Your task to perform on an android device: Open Maps and search for coffee Image 0: 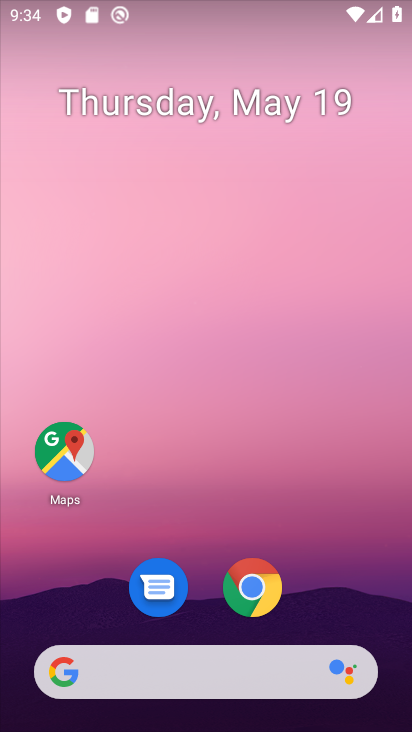
Step 0: click (86, 457)
Your task to perform on an android device: Open Maps and search for coffee Image 1: 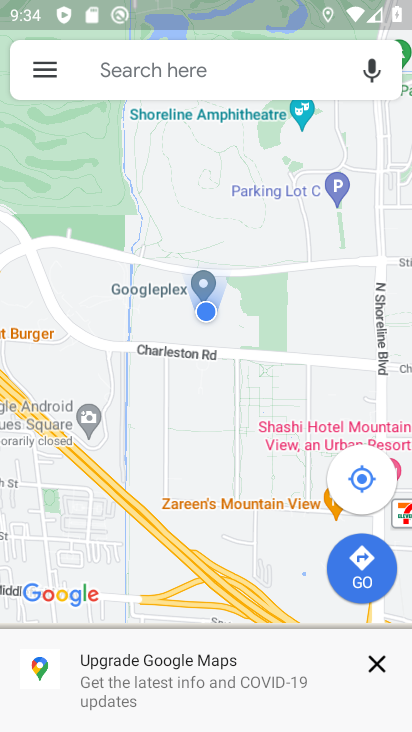
Step 1: click (172, 68)
Your task to perform on an android device: Open Maps and search for coffee Image 2: 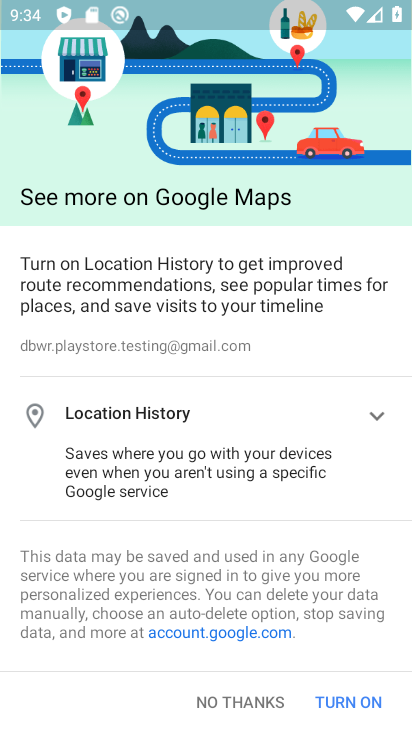
Step 2: click (327, 709)
Your task to perform on an android device: Open Maps and search for coffee Image 3: 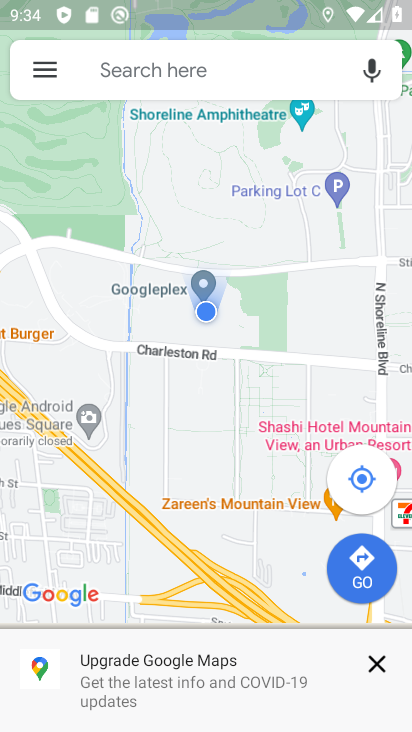
Step 3: click (184, 221)
Your task to perform on an android device: Open Maps and search for coffee Image 4: 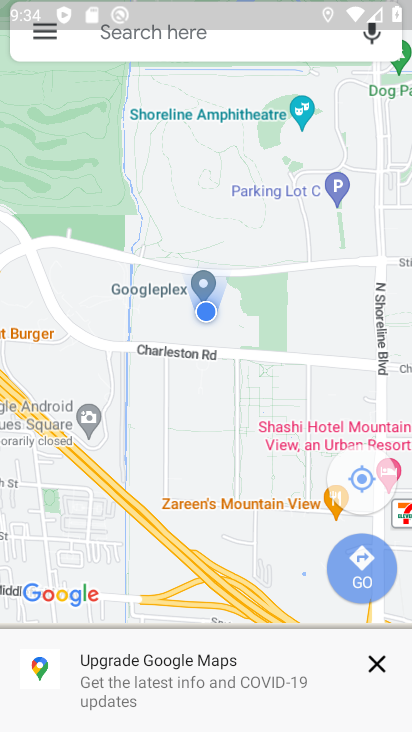
Step 4: click (43, 166)
Your task to perform on an android device: Open Maps and search for coffee Image 5: 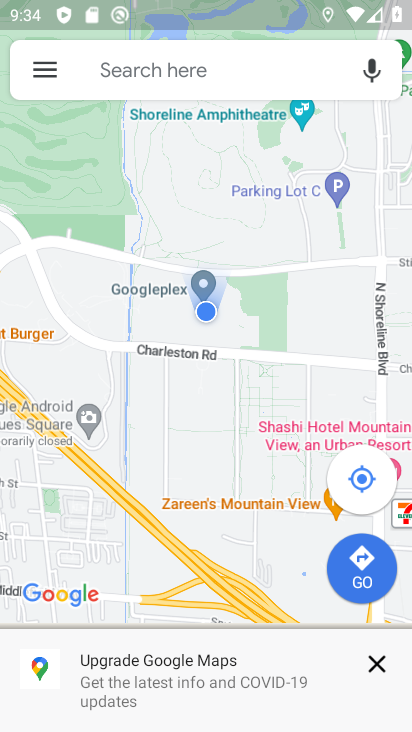
Step 5: click (175, 80)
Your task to perform on an android device: Open Maps and search for coffee Image 6: 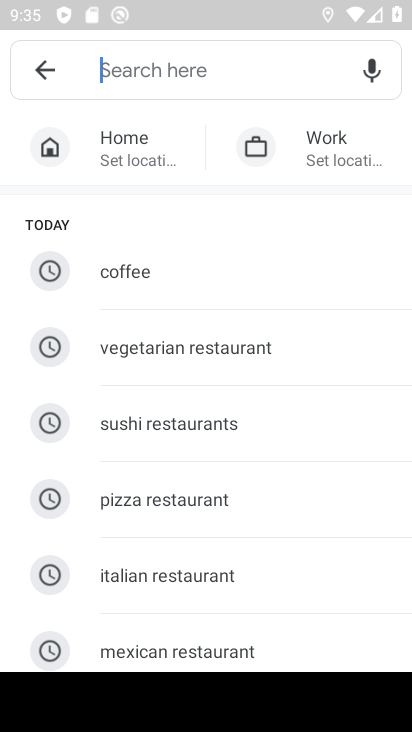
Step 6: click (117, 274)
Your task to perform on an android device: Open Maps and search for coffee Image 7: 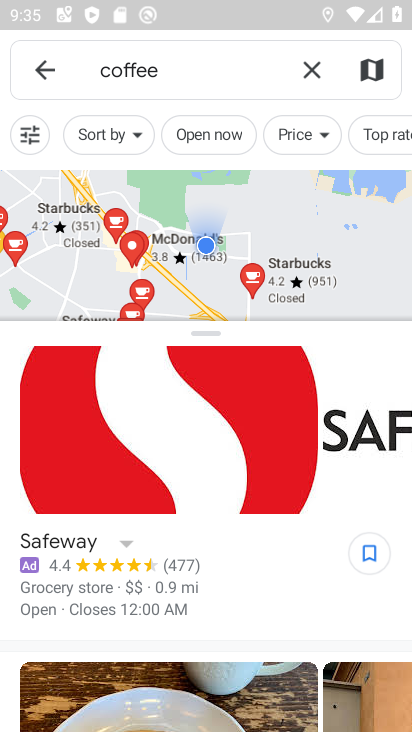
Step 7: task complete